Your task to perform on an android device: turn off translation in the chrome app Image 0: 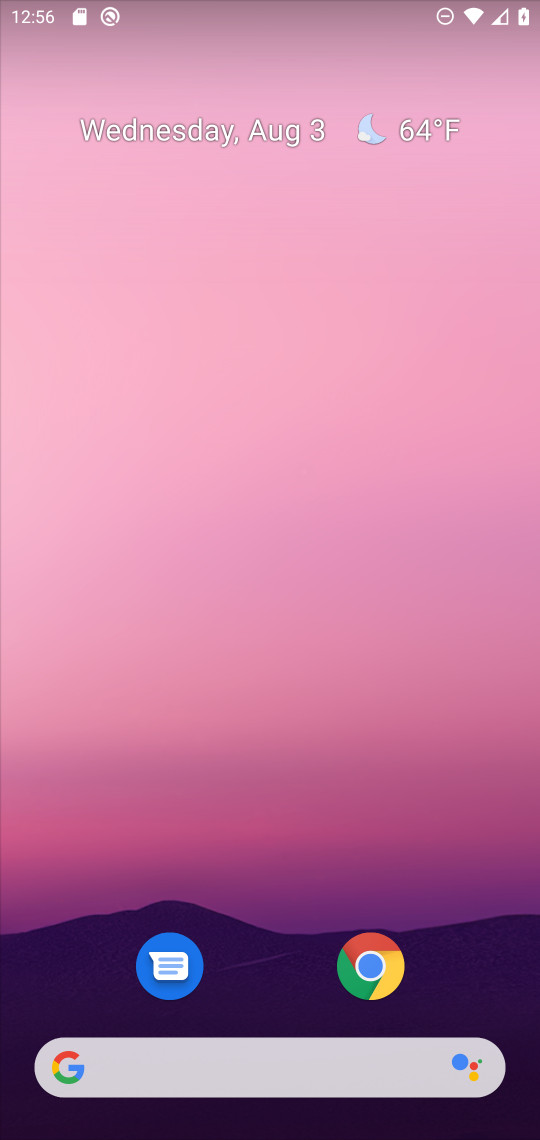
Step 0: click (354, 962)
Your task to perform on an android device: turn off translation in the chrome app Image 1: 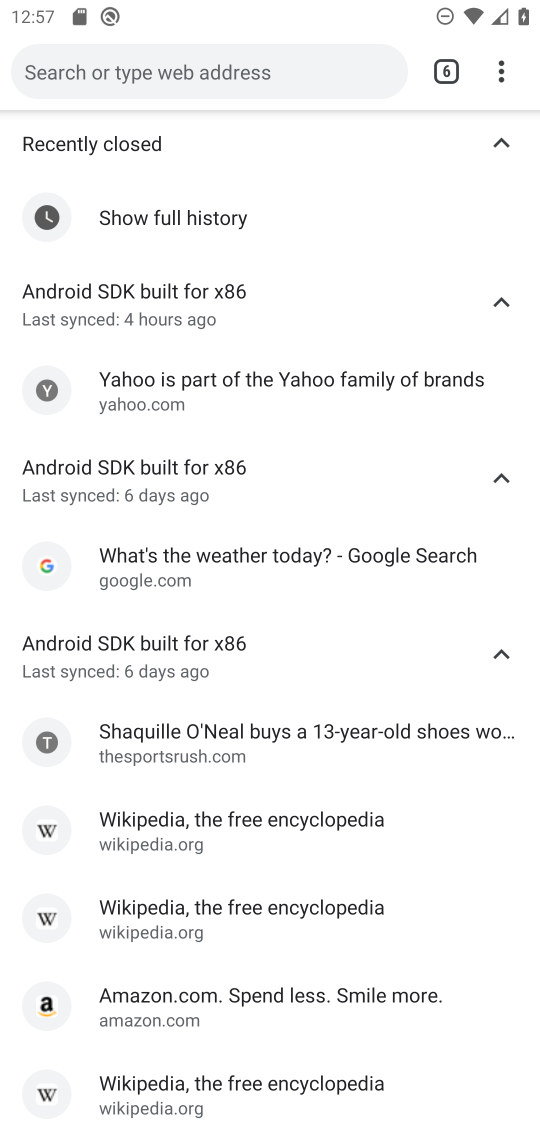
Step 1: click (510, 78)
Your task to perform on an android device: turn off translation in the chrome app Image 2: 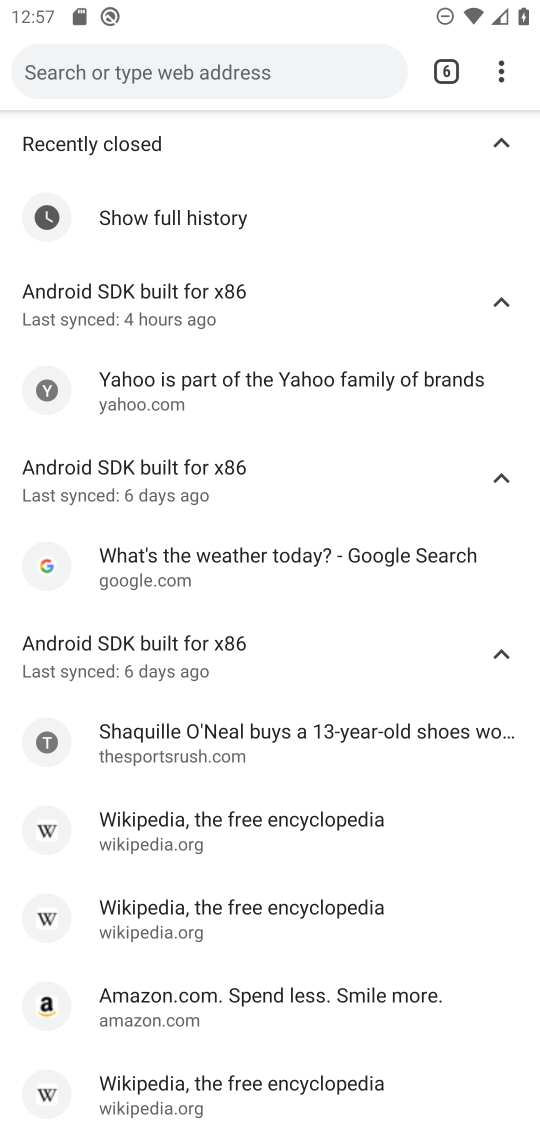
Step 2: click (499, 75)
Your task to perform on an android device: turn off translation in the chrome app Image 3: 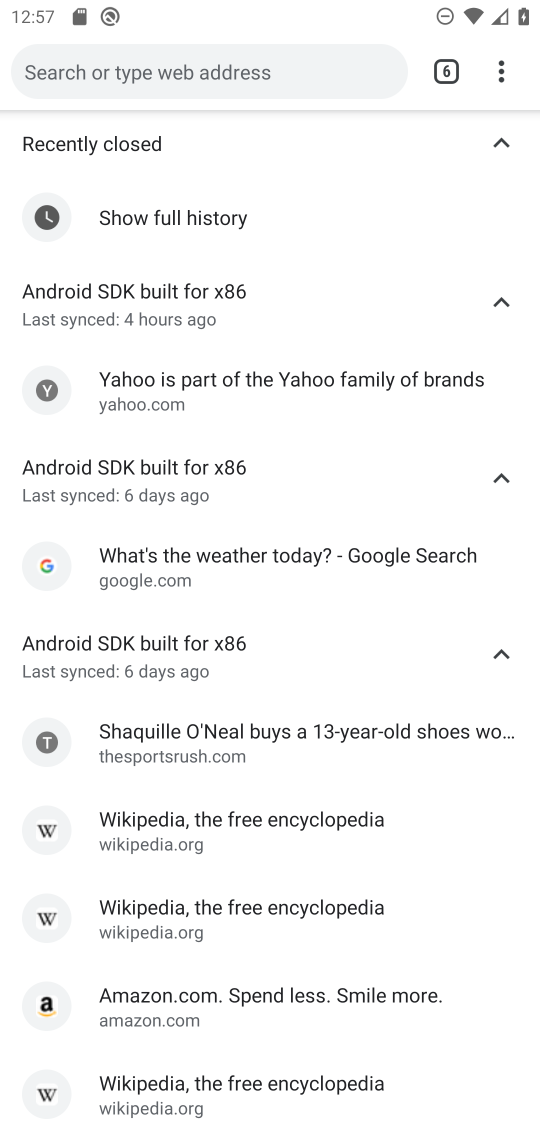
Step 3: click (512, 72)
Your task to perform on an android device: turn off translation in the chrome app Image 4: 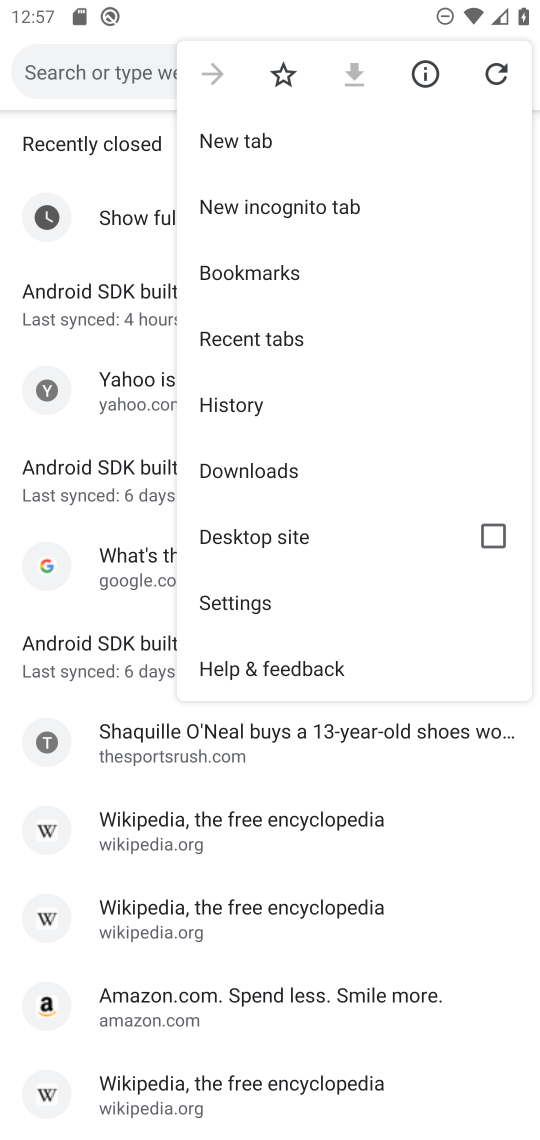
Step 4: click (290, 602)
Your task to perform on an android device: turn off translation in the chrome app Image 5: 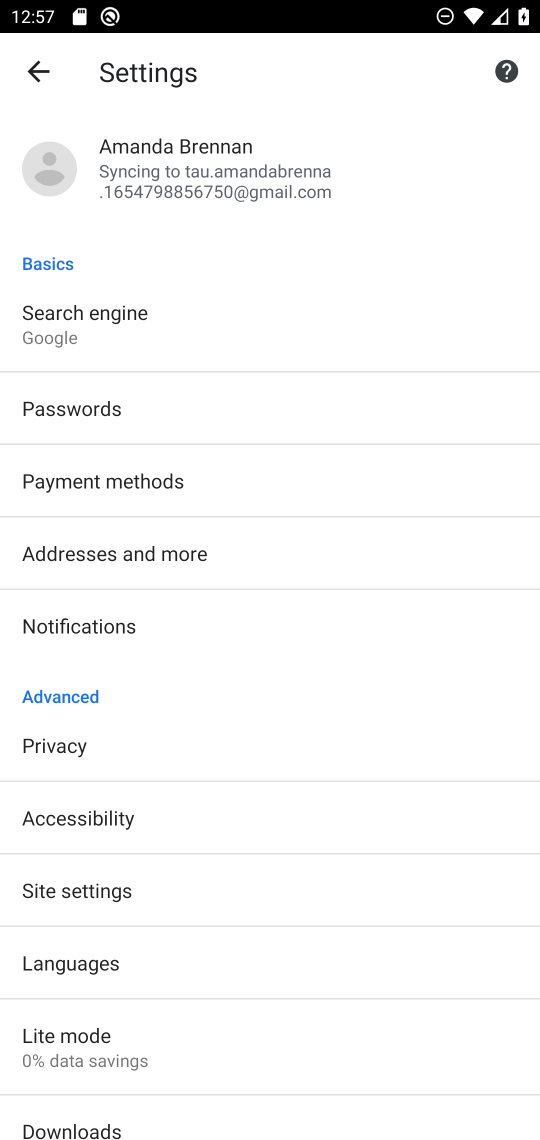
Step 5: click (155, 962)
Your task to perform on an android device: turn off translation in the chrome app Image 6: 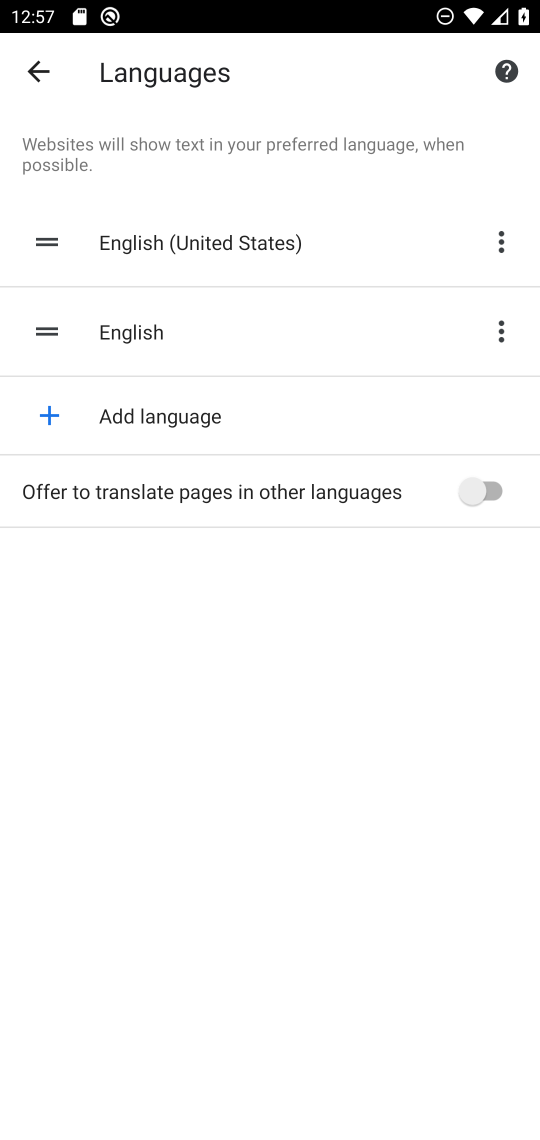
Step 6: task complete